Your task to perform on an android device: Open Chrome and go to settings Image 0: 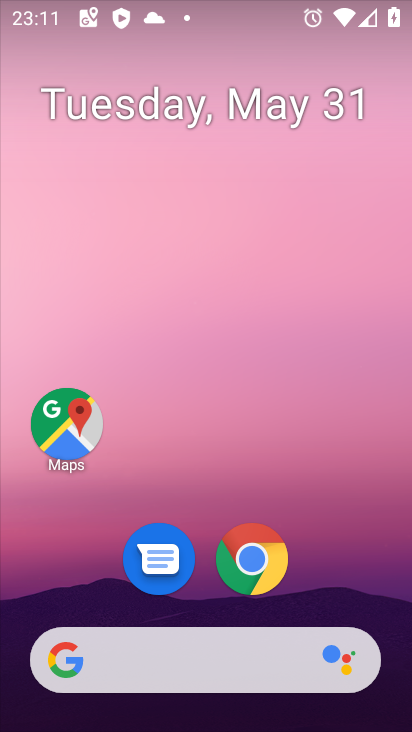
Step 0: click (251, 559)
Your task to perform on an android device: Open Chrome and go to settings Image 1: 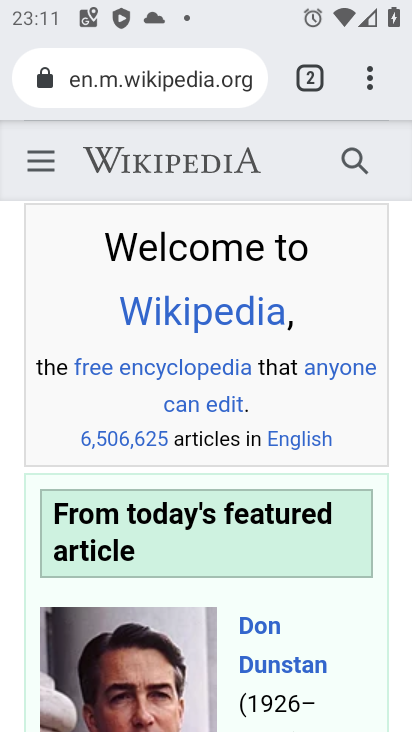
Step 1: click (363, 79)
Your task to perform on an android device: Open Chrome and go to settings Image 2: 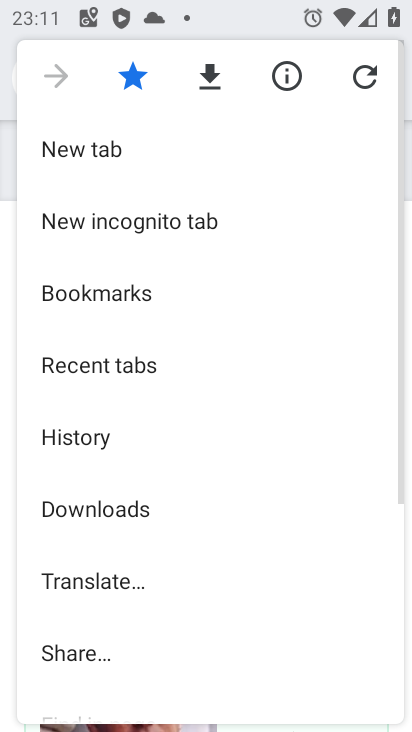
Step 2: drag from (226, 617) to (173, 162)
Your task to perform on an android device: Open Chrome and go to settings Image 3: 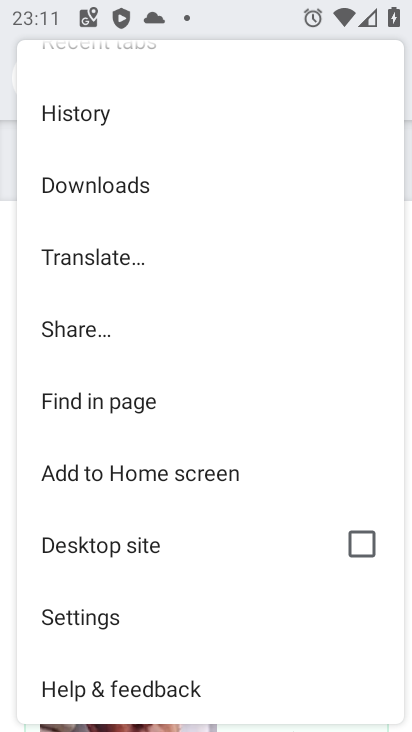
Step 3: click (151, 612)
Your task to perform on an android device: Open Chrome and go to settings Image 4: 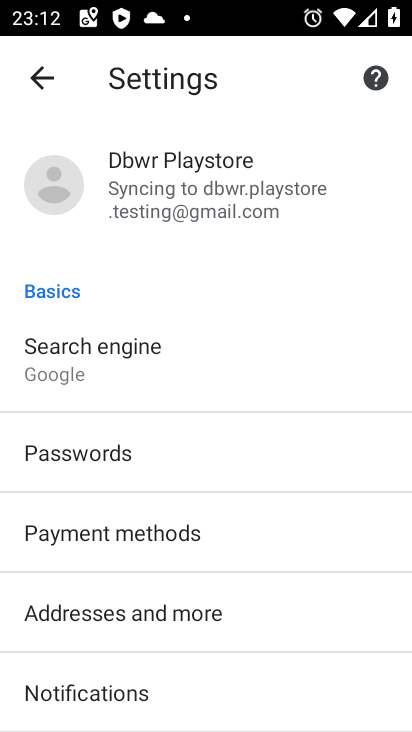
Step 4: task complete